Your task to perform on an android device: add a contact Image 0: 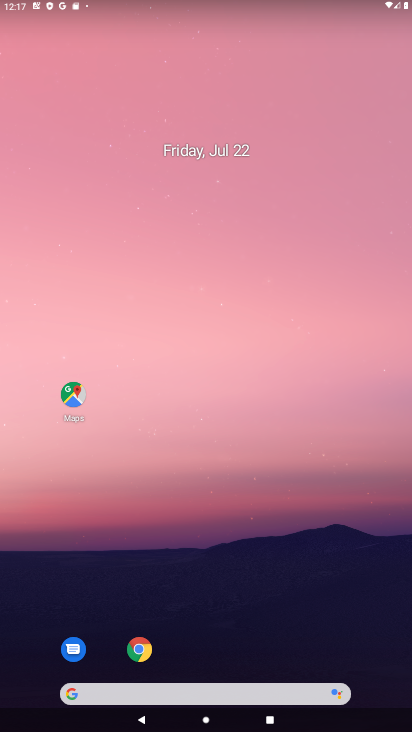
Step 0: drag from (223, 725) to (206, 280)
Your task to perform on an android device: add a contact Image 1: 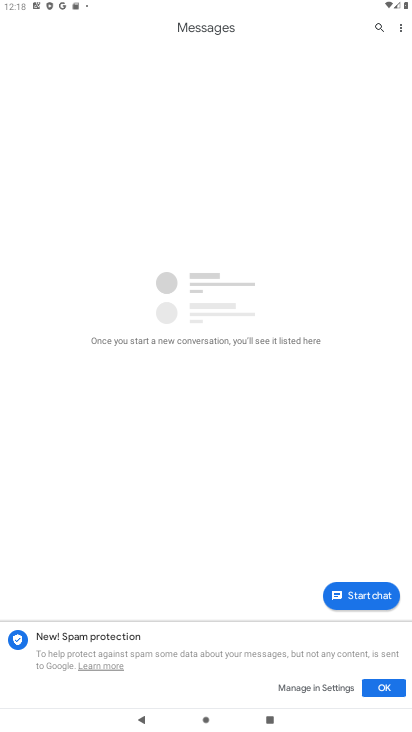
Step 1: press home button
Your task to perform on an android device: add a contact Image 2: 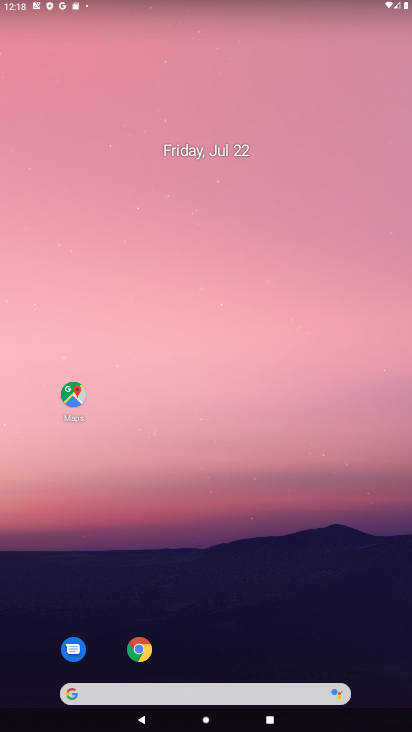
Step 2: drag from (228, 711) to (214, 120)
Your task to perform on an android device: add a contact Image 3: 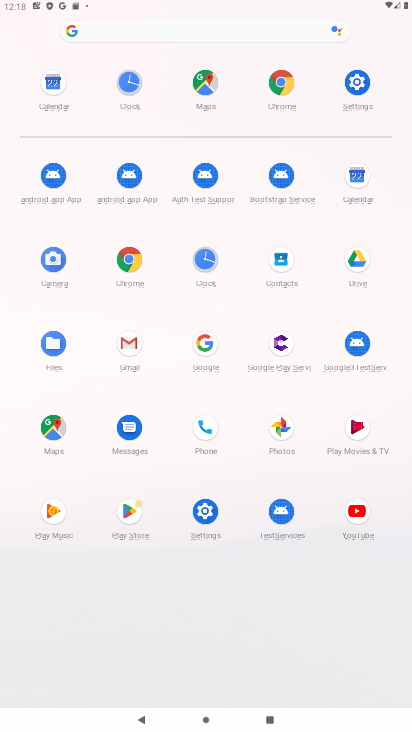
Step 3: click (281, 262)
Your task to perform on an android device: add a contact Image 4: 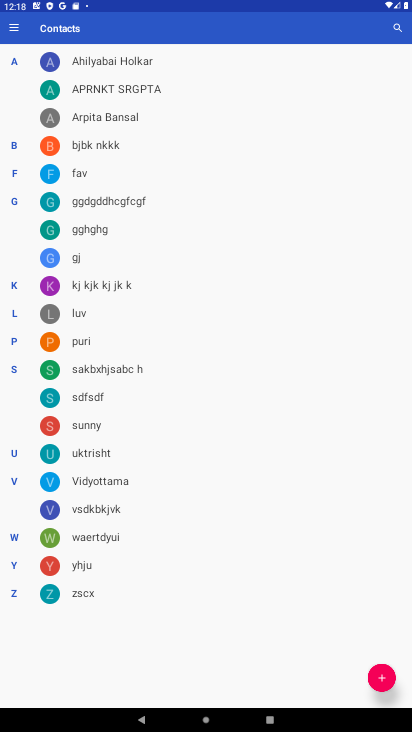
Step 4: click (383, 676)
Your task to perform on an android device: add a contact Image 5: 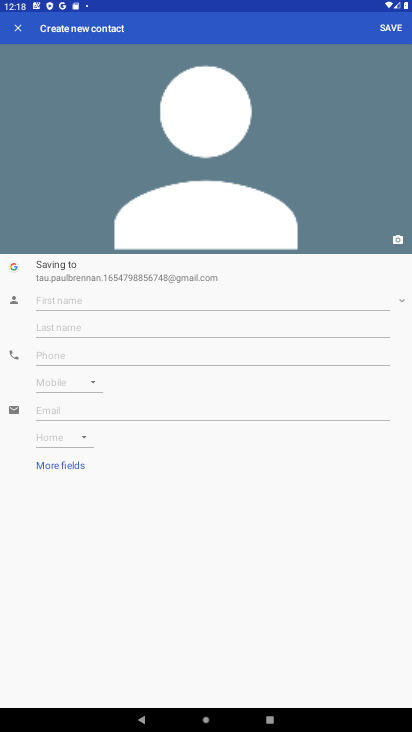
Step 5: click (126, 297)
Your task to perform on an android device: add a contact Image 6: 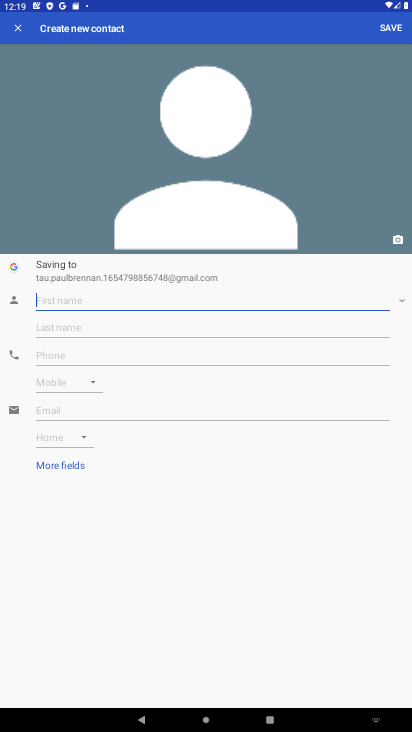
Step 6: type "kshtrya "
Your task to perform on an android device: add a contact Image 7: 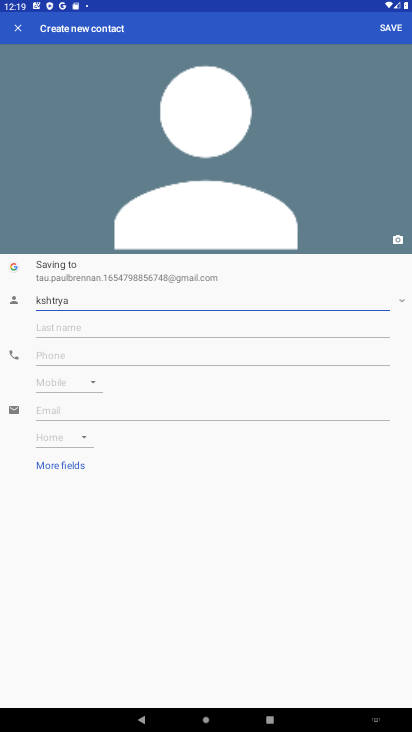
Step 7: click (162, 358)
Your task to perform on an android device: add a contact Image 8: 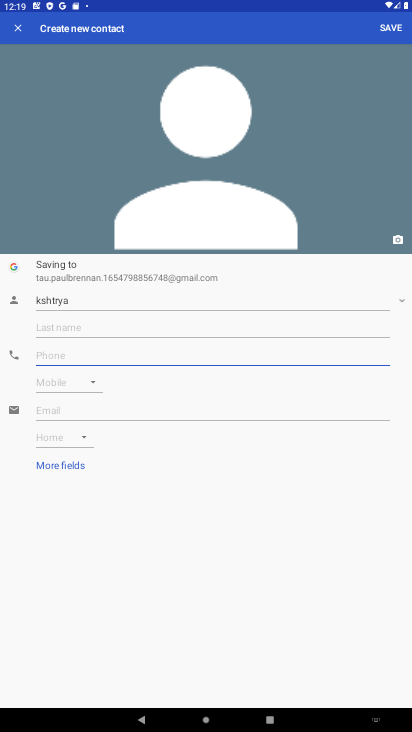
Step 8: type "5656"
Your task to perform on an android device: add a contact Image 9: 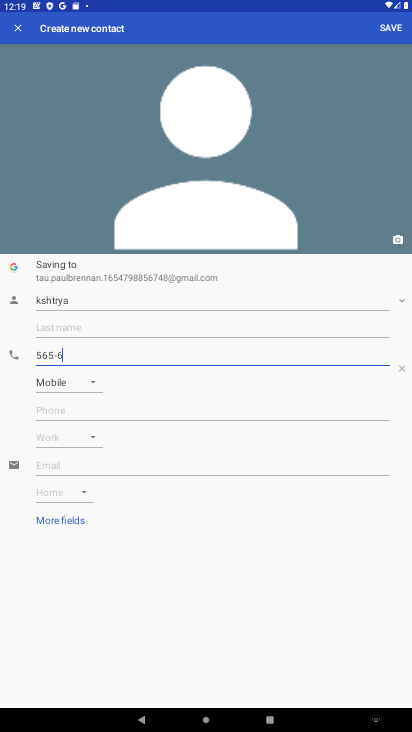
Step 9: click (397, 22)
Your task to perform on an android device: add a contact Image 10: 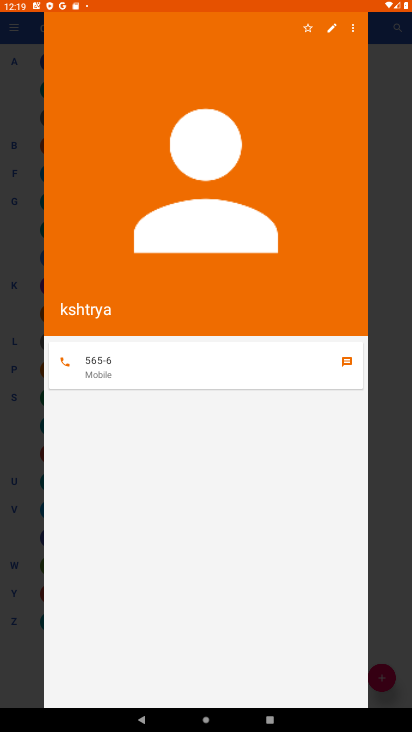
Step 10: task complete